Your task to perform on an android device: Open Google Image 0: 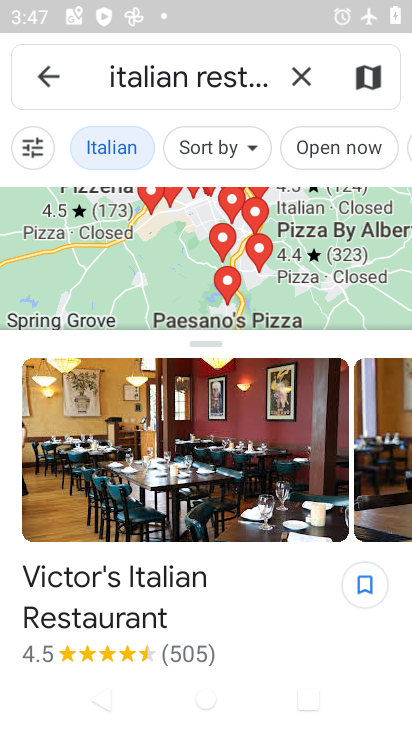
Step 0: press home button
Your task to perform on an android device: Open Google Image 1: 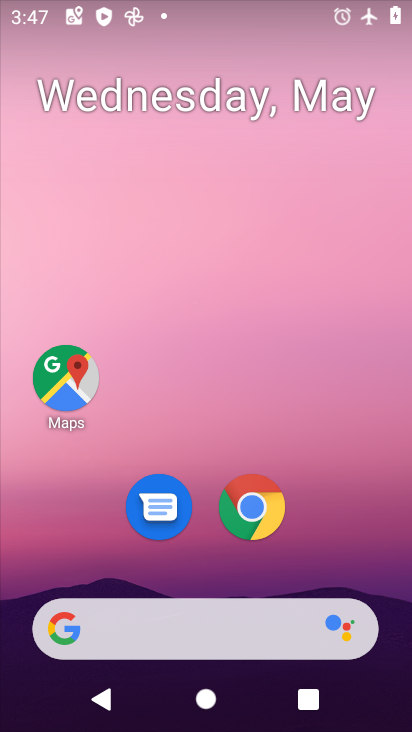
Step 1: drag from (326, 156) to (325, 117)
Your task to perform on an android device: Open Google Image 2: 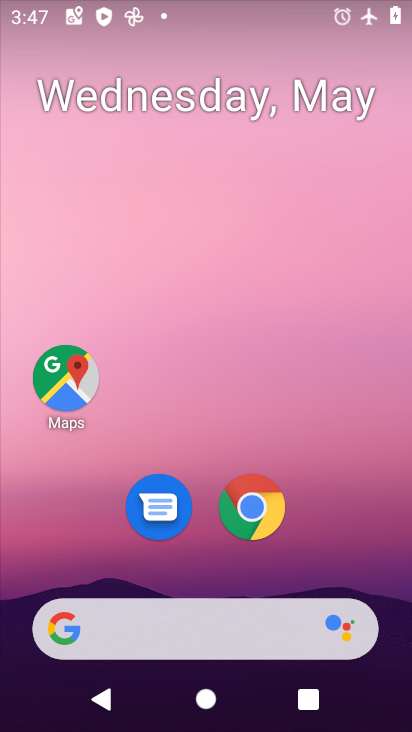
Step 2: drag from (318, 513) to (230, 111)
Your task to perform on an android device: Open Google Image 3: 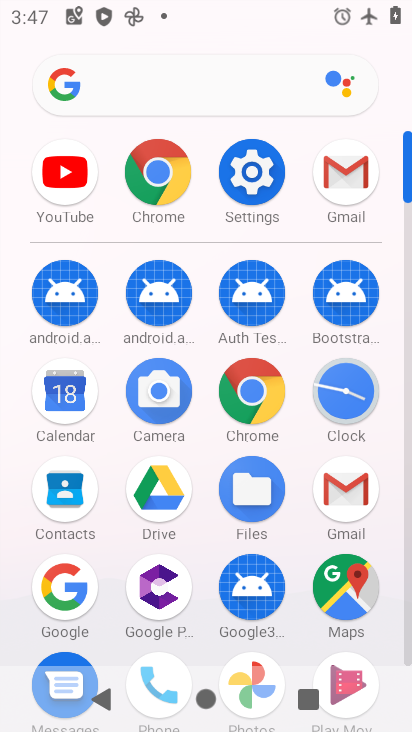
Step 3: click (72, 588)
Your task to perform on an android device: Open Google Image 4: 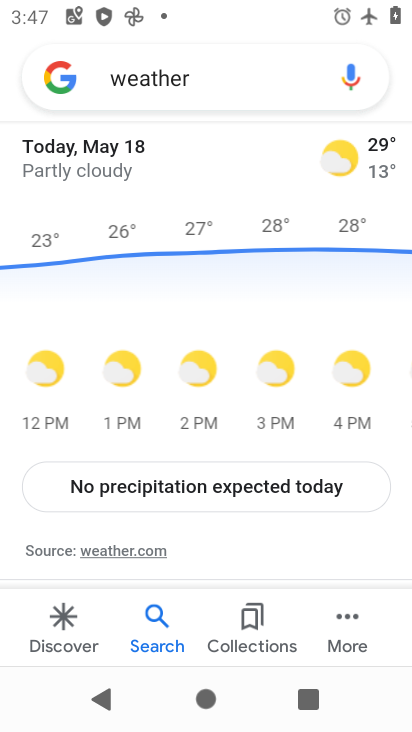
Step 4: task complete